Your task to perform on an android device: Search for "asus zenbook" on costco.com, select the first entry, and add it to the cart. Image 0: 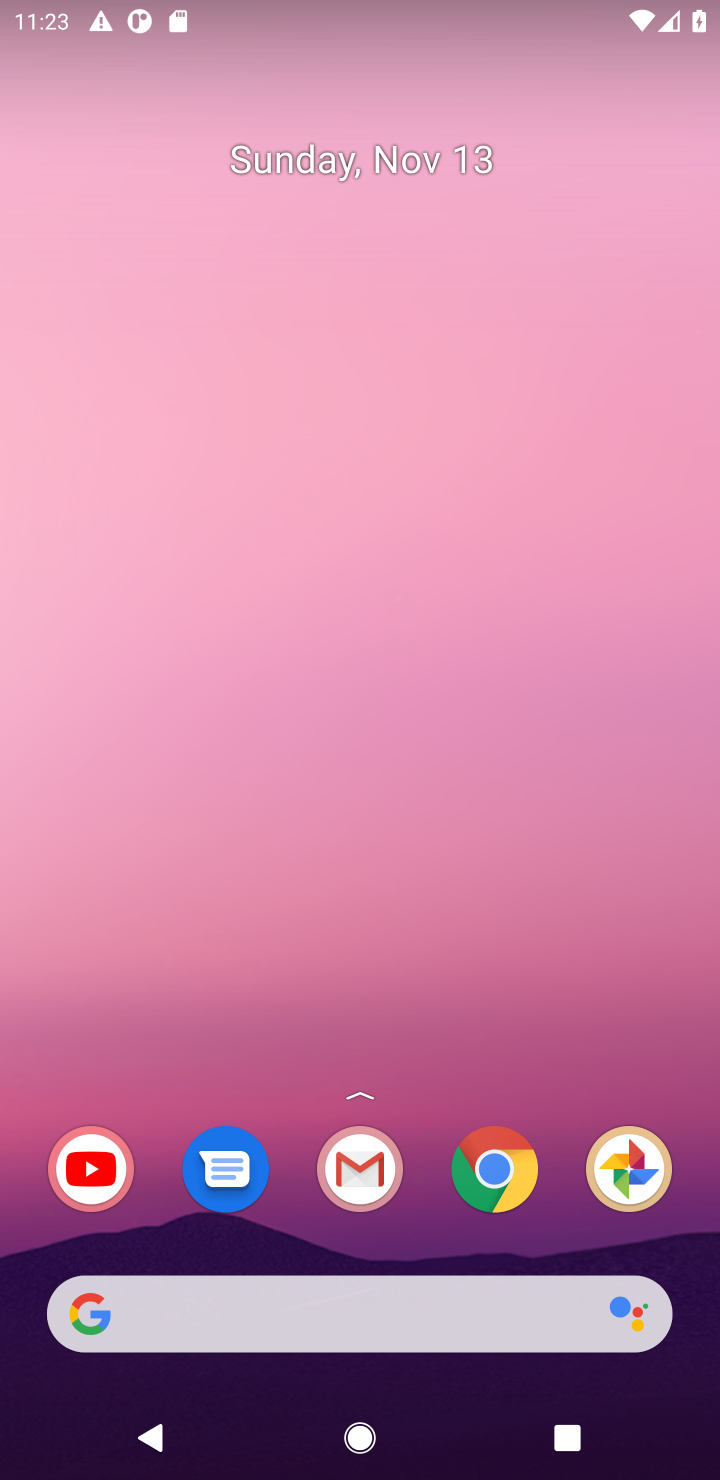
Step 0: drag from (450, 1241) to (442, 499)
Your task to perform on an android device: Search for "asus zenbook" on costco.com, select the first entry, and add it to the cart. Image 1: 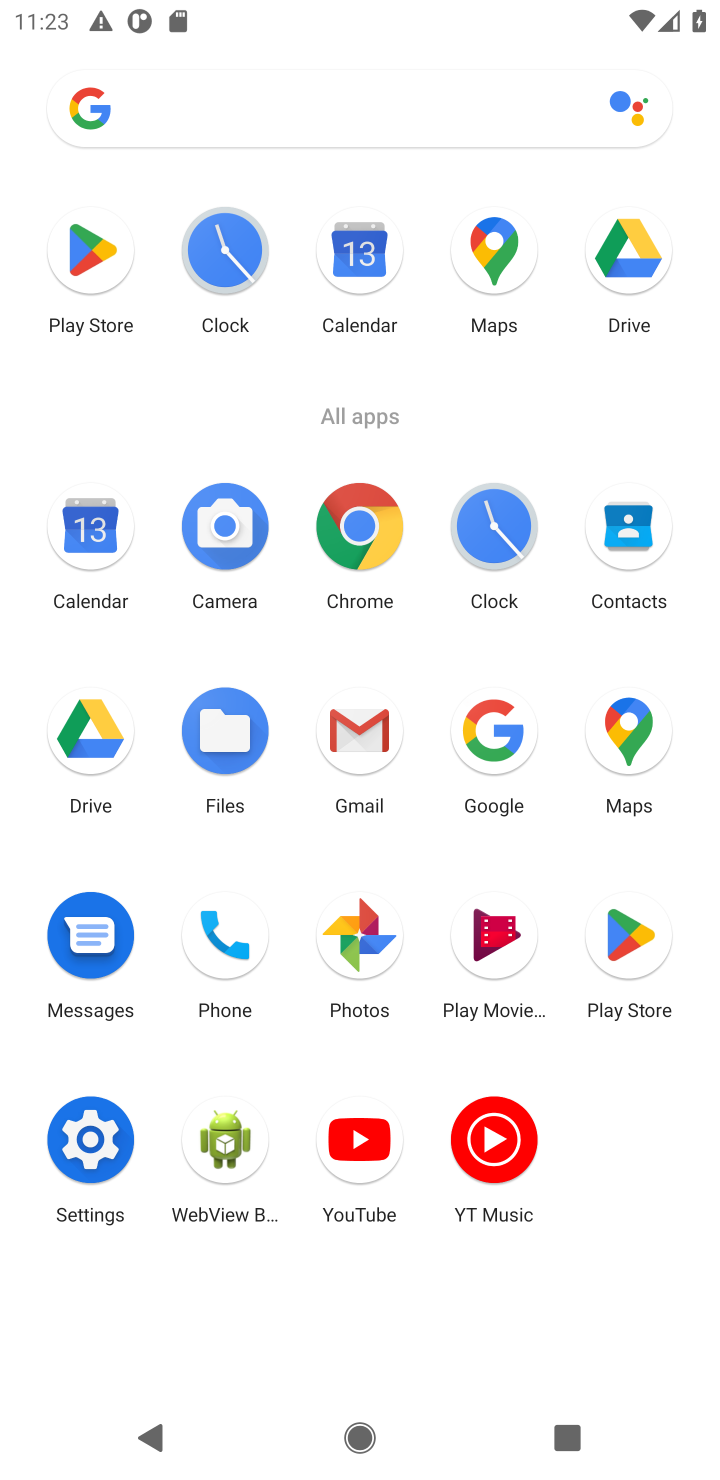
Step 1: click (361, 520)
Your task to perform on an android device: Search for "asus zenbook" on costco.com, select the first entry, and add it to the cart. Image 2: 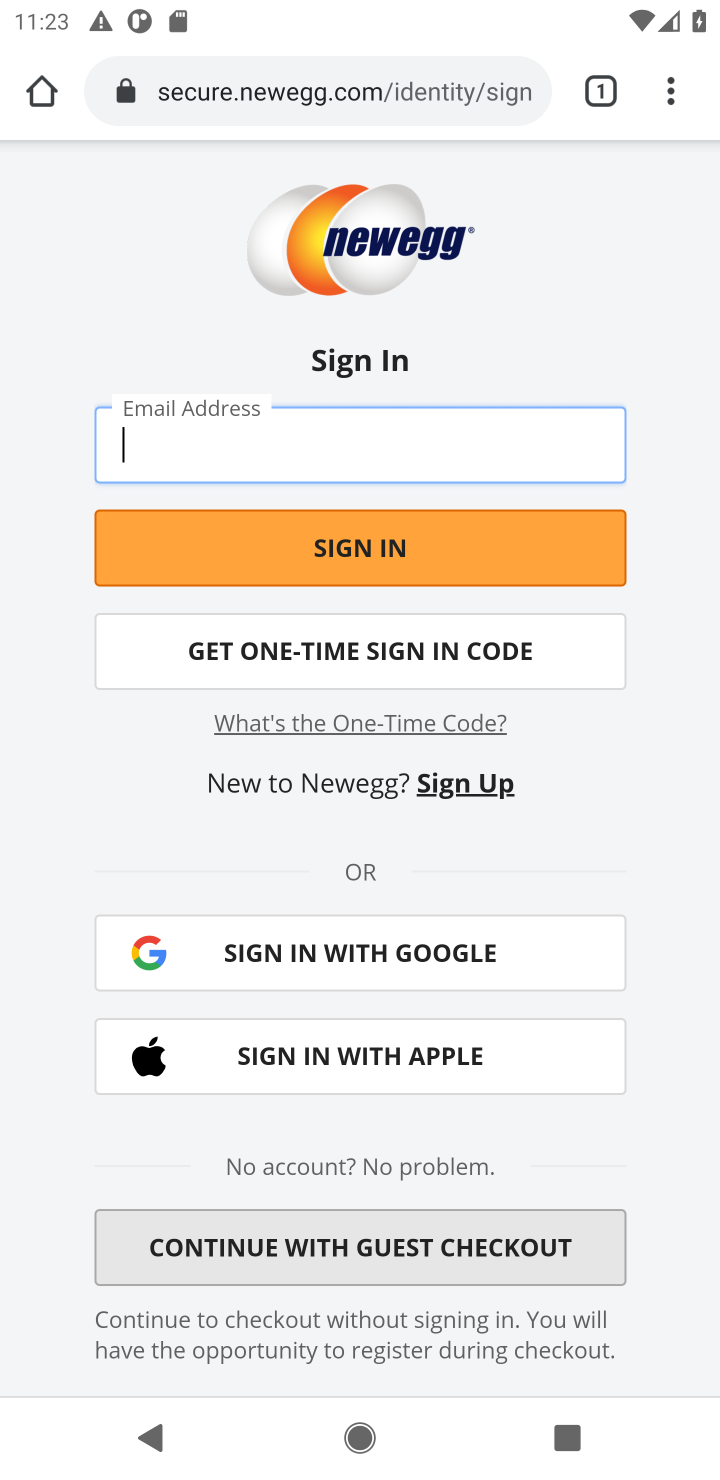
Step 2: click (423, 68)
Your task to perform on an android device: Search for "asus zenbook" on costco.com, select the first entry, and add it to the cart. Image 3: 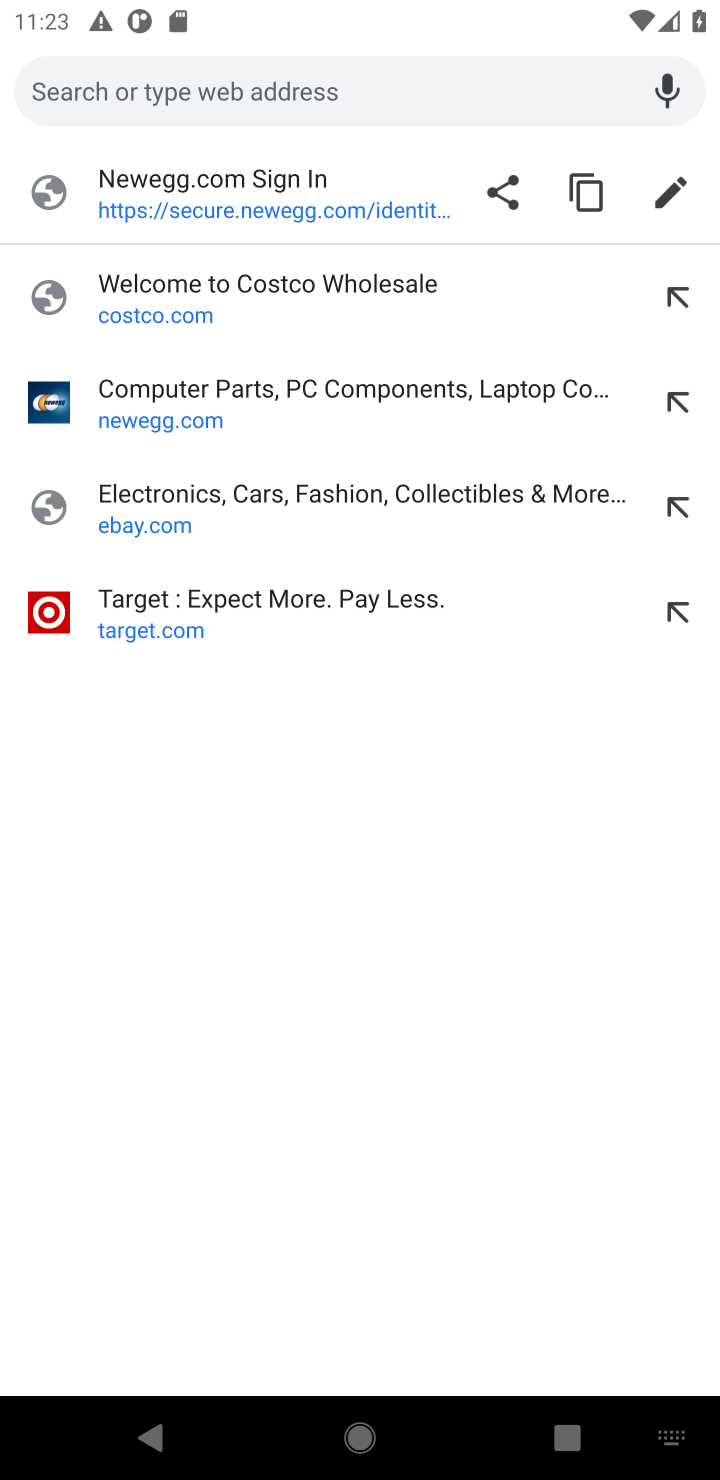
Step 3: type "costco.com"
Your task to perform on an android device: Search for "asus zenbook" on costco.com, select the first entry, and add it to the cart. Image 4: 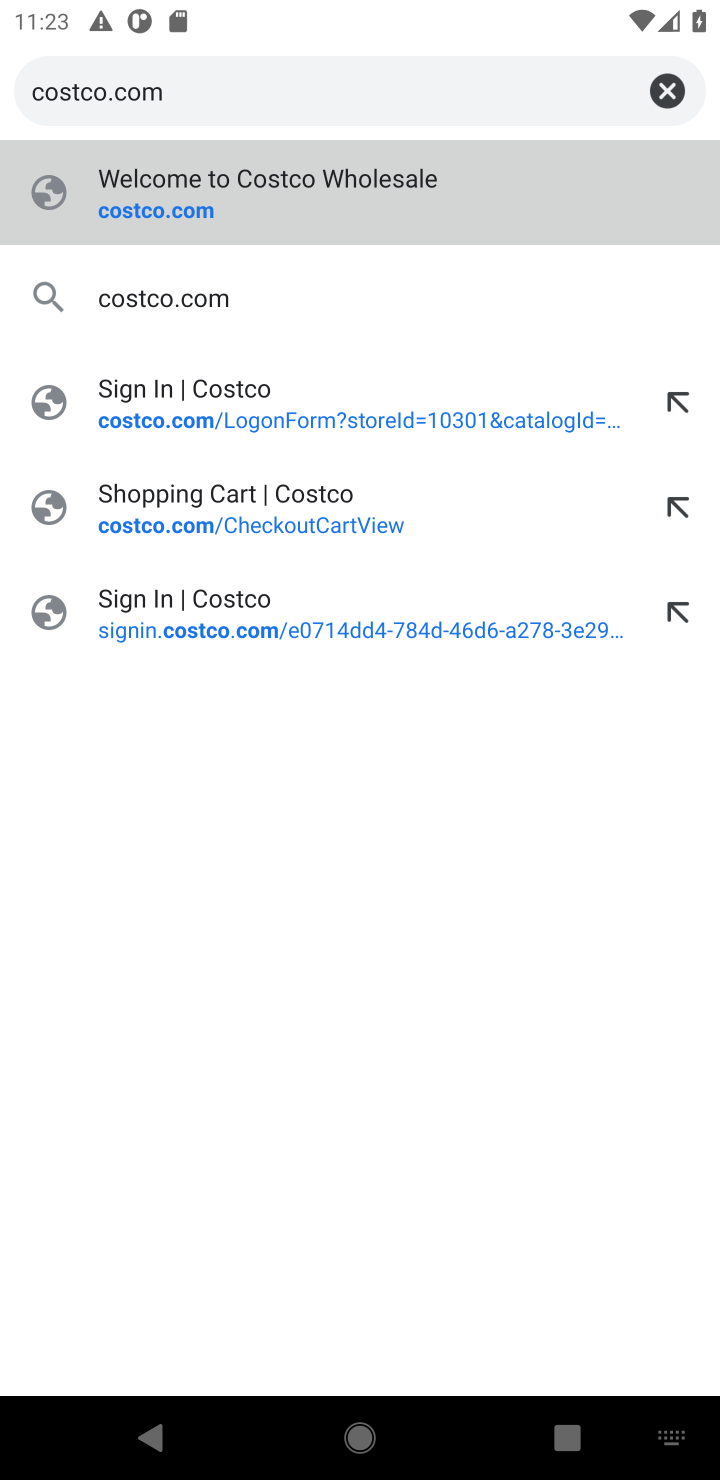
Step 4: press enter
Your task to perform on an android device: Search for "asus zenbook" on costco.com, select the first entry, and add it to the cart. Image 5: 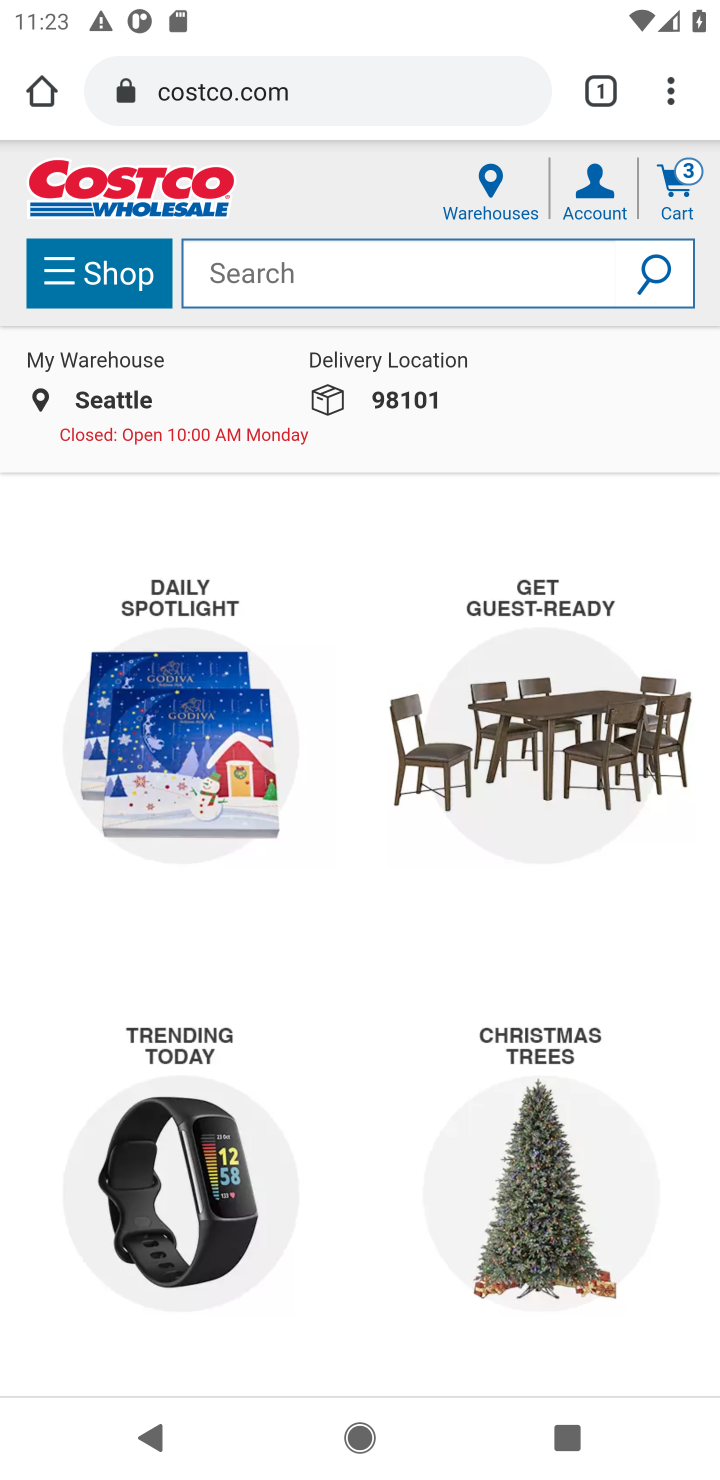
Step 5: click (325, 285)
Your task to perform on an android device: Search for "asus zenbook" on costco.com, select the first entry, and add it to the cart. Image 6: 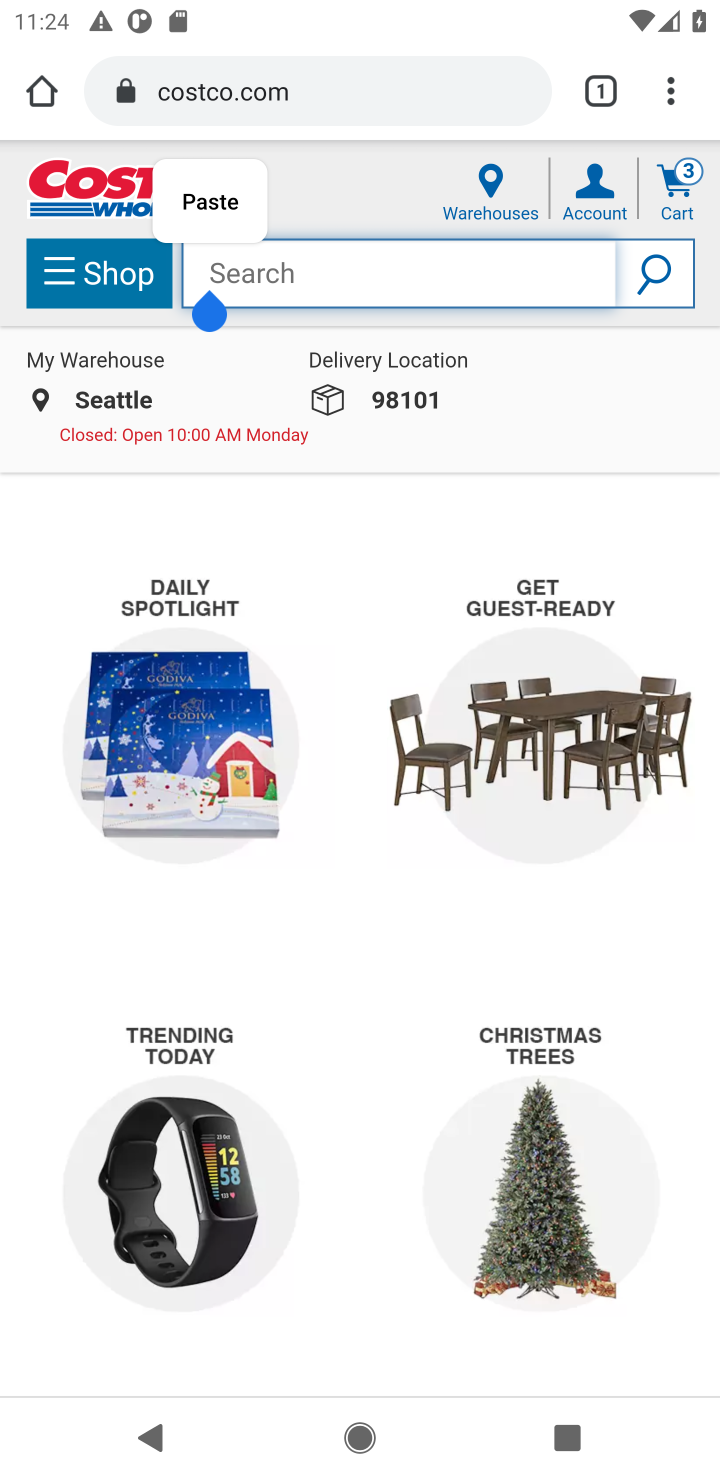
Step 6: type "asus zenbook"
Your task to perform on an android device: Search for "asus zenbook" on costco.com, select the first entry, and add it to the cart. Image 7: 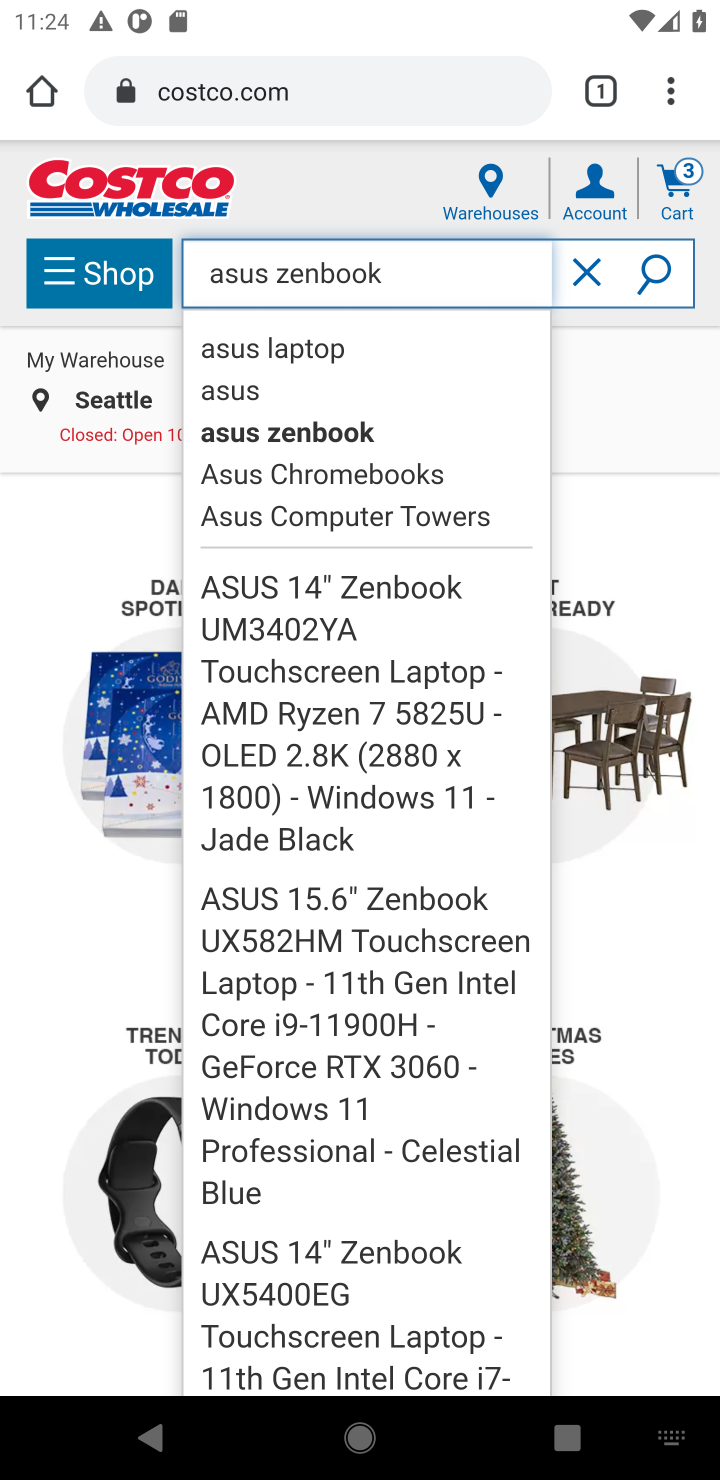
Step 7: press enter
Your task to perform on an android device: Search for "asus zenbook" on costco.com, select the first entry, and add it to the cart. Image 8: 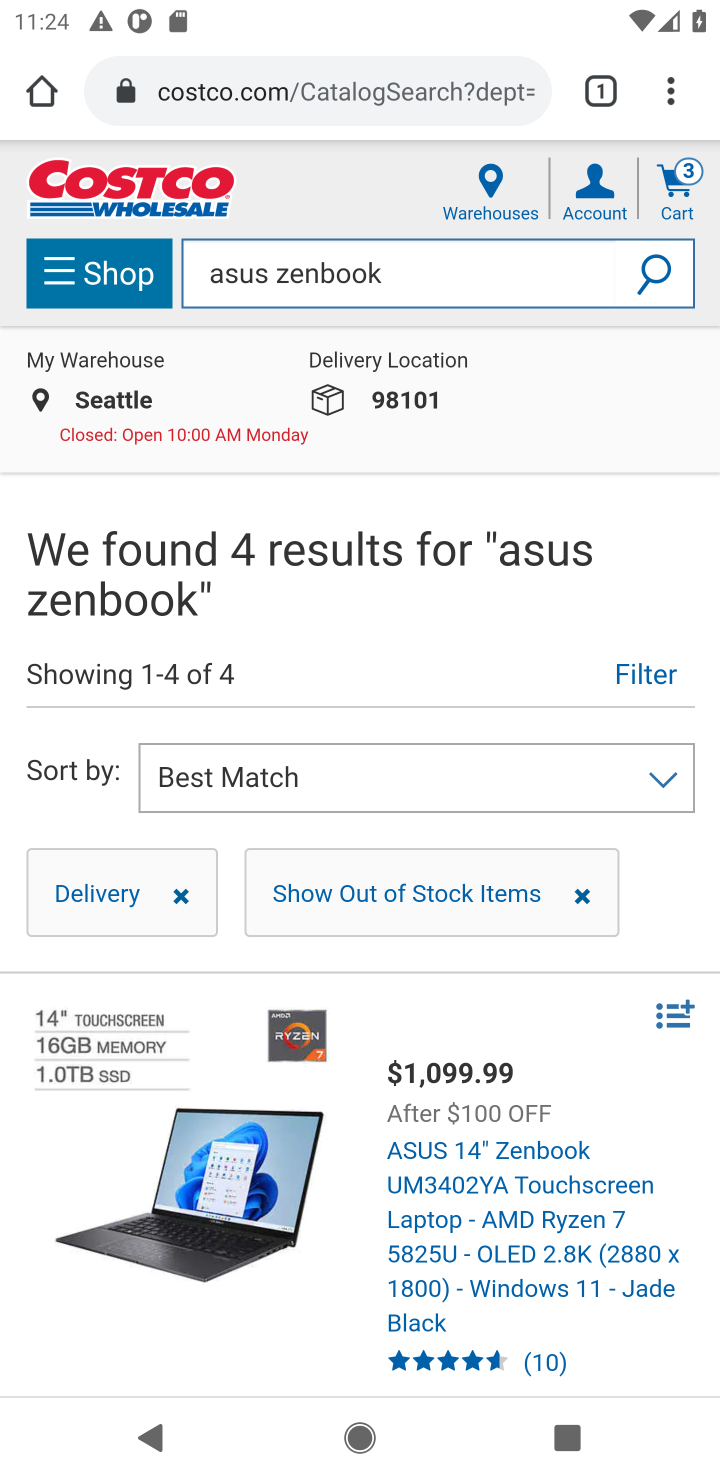
Step 8: drag from (429, 1328) to (570, 522)
Your task to perform on an android device: Search for "asus zenbook" on costco.com, select the first entry, and add it to the cart. Image 9: 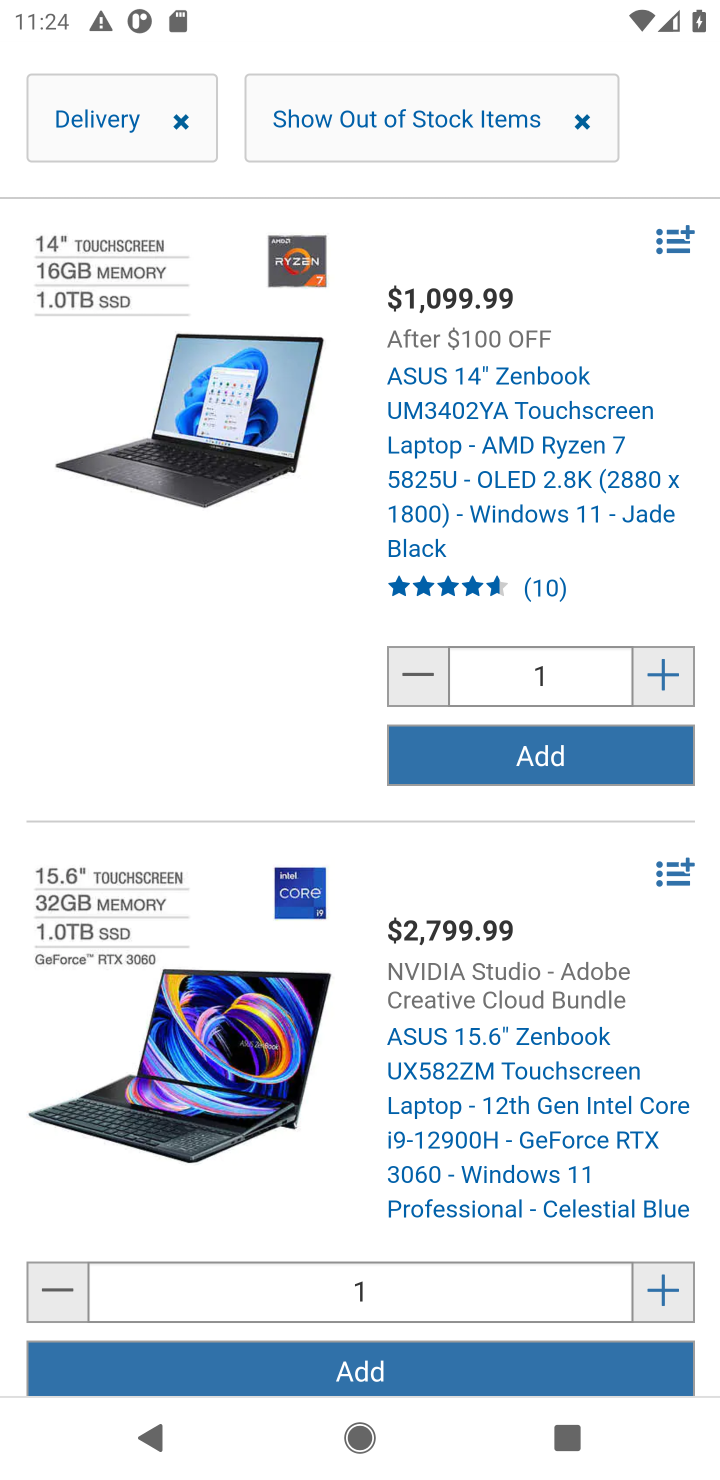
Step 9: click (496, 758)
Your task to perform on an android device: Search for "asus zenbook" on costco.com, select the first entry, and add it to the cart. Image 10: 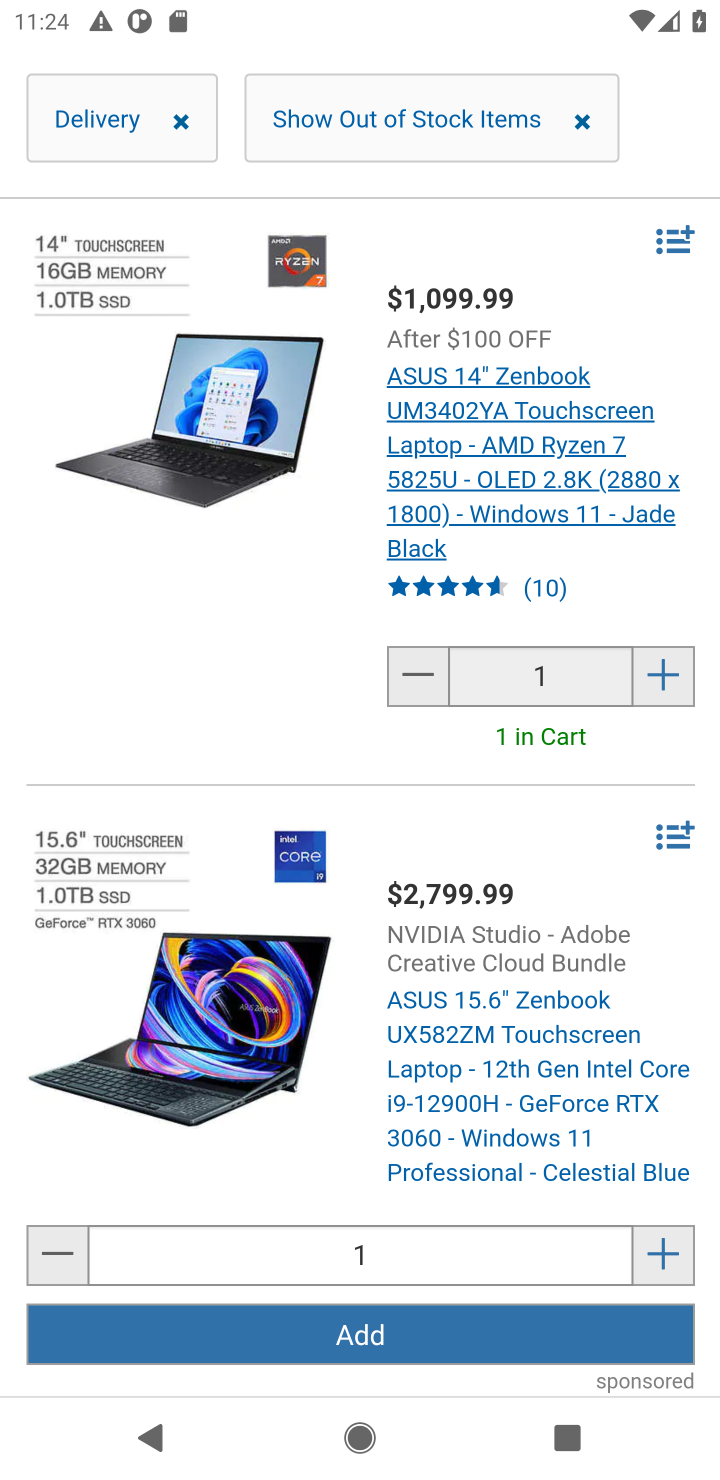
Step 10: task complete